Your task to perform on an android device: Open Amazon Image 0: 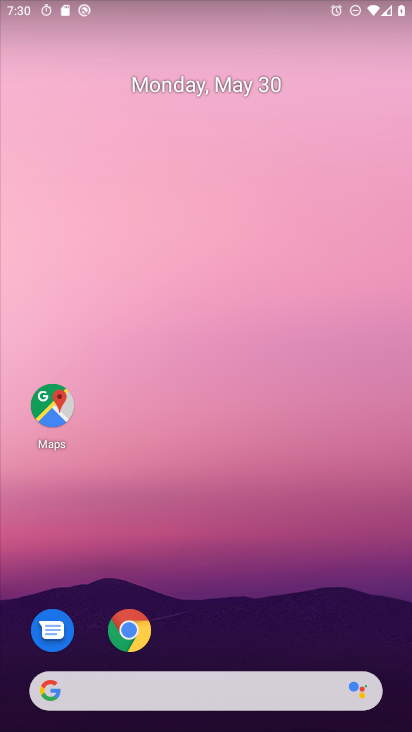
Step 0: drag from (357, 610) to (357, 472)
Your task to perform on an android device: Open Amazon Image 1: 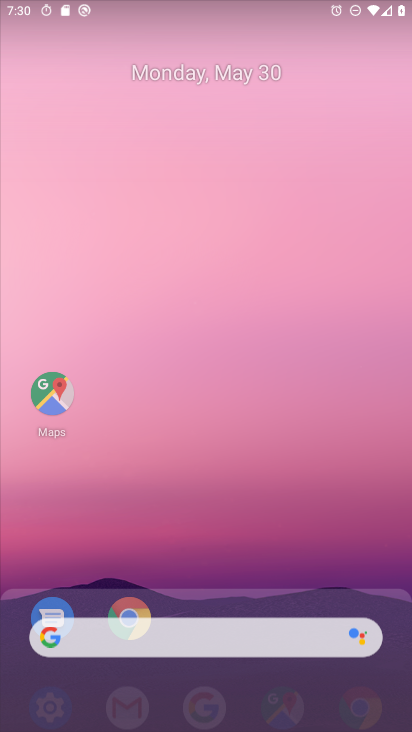
Step 1: drag from (350, 178) to (308, 24)
Your task to perform on an android device: Open Amazon Image 2: 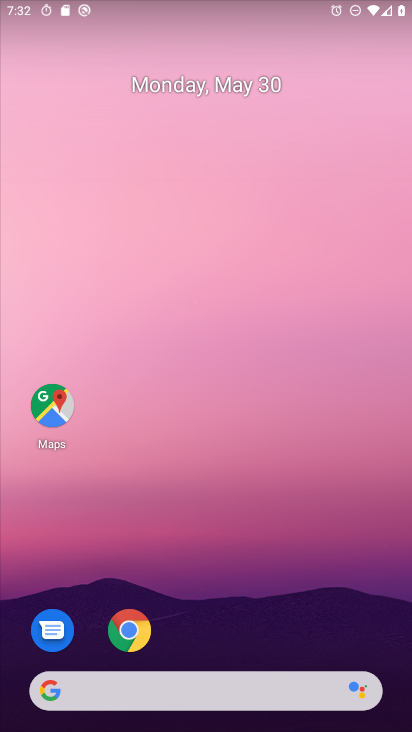
Step 2: drag from (316, 615) to (275, 53)
Your task to perform on an android device: Open Amazon Image 3: 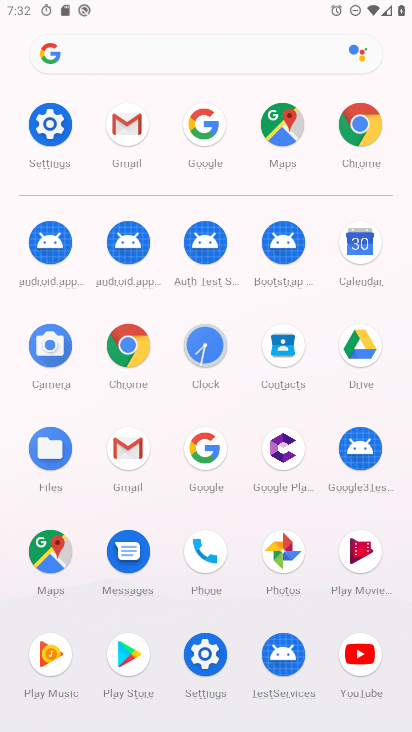
Step 3: click (209, 120)
Your task to perform on an android device: Open Amazon Image 4: 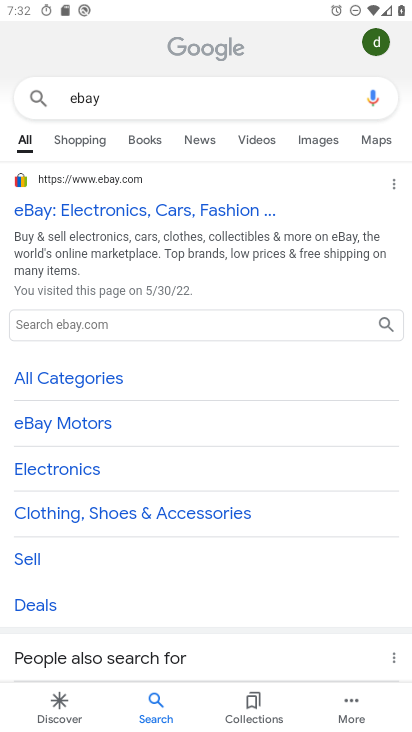
Step 4: press back button
Your task to perform on an android device: Open Amazon Image 5: 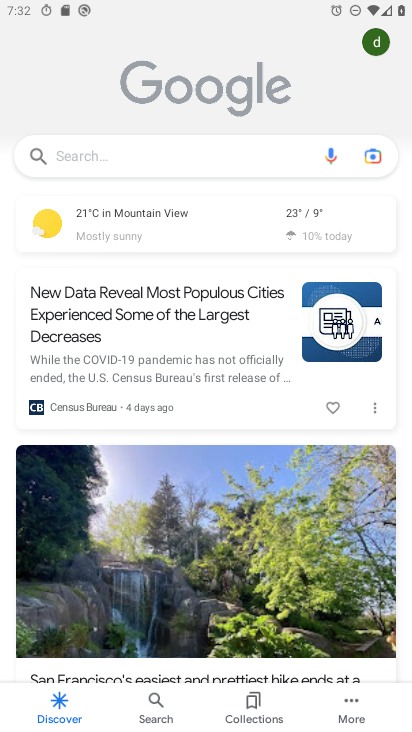
Step 5: click (144, 148)
Your task to perform on an android device: Open Amazon Image 6: 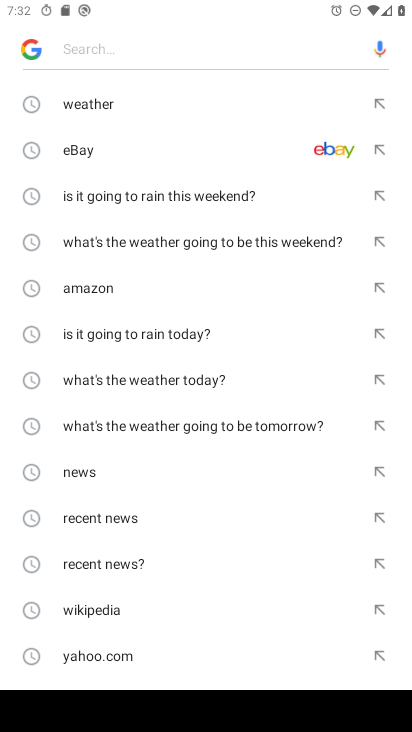
Step 6: drag from (128, 630) to (165, 387)
Your task to perform on an android device: Open Amazon Image 7: 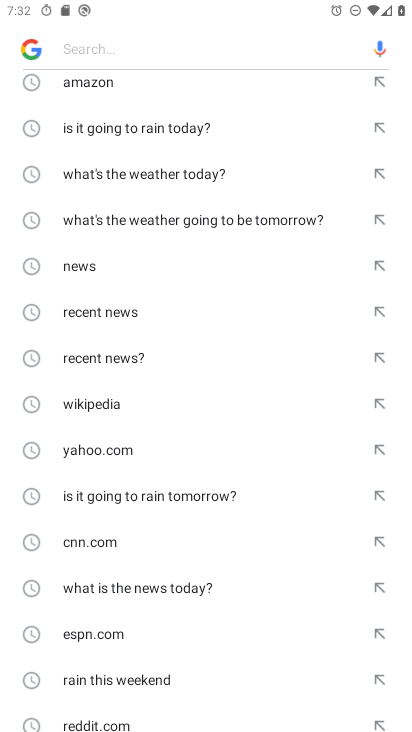
Step 7: click (122, 91)
Your task to perform on an android device: Open Amazon Image 8: 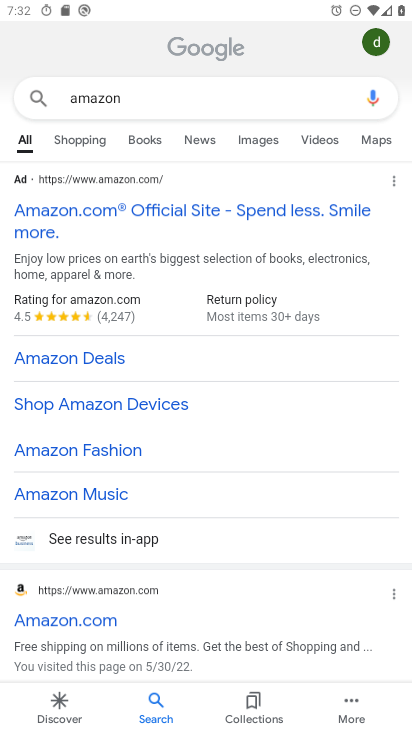
Step 8: task complete